Your task to perform on an android device: search for starred emails in the gmail app Image 0: 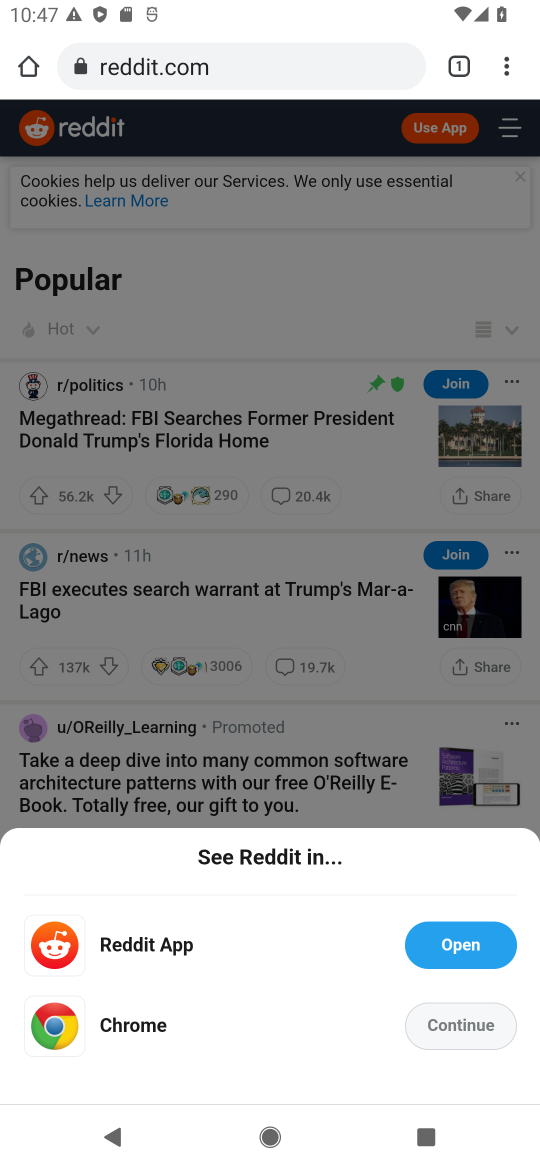
Step 0: press home button
Your task to perform on an android device: search for starred emails in the gmail app Image 1: 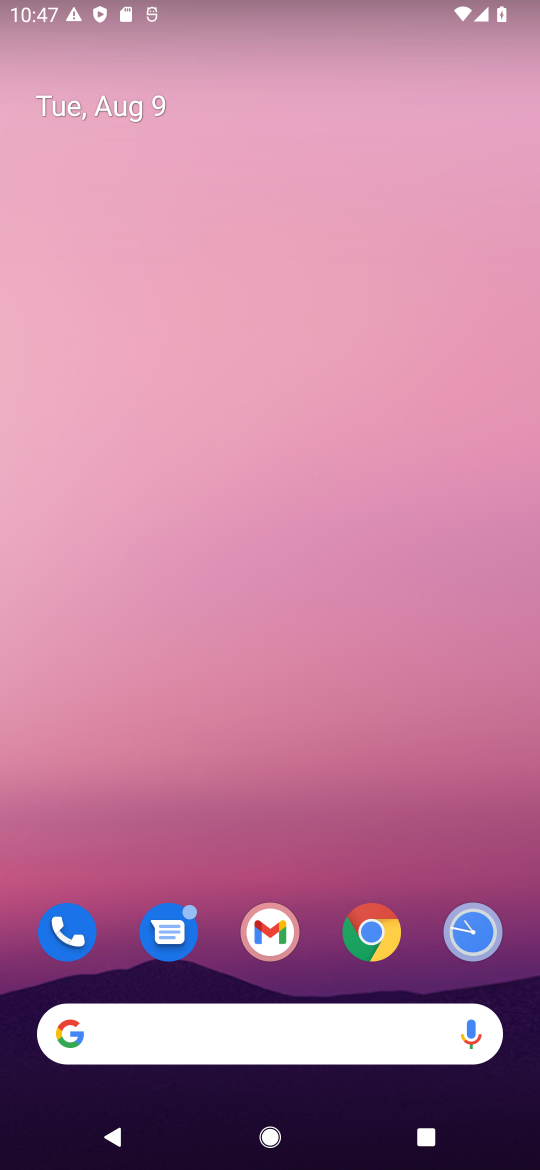
Step 1: click (279, 934)
Your task to perform on an android device: search for starred emails in the gmail app Image 2: 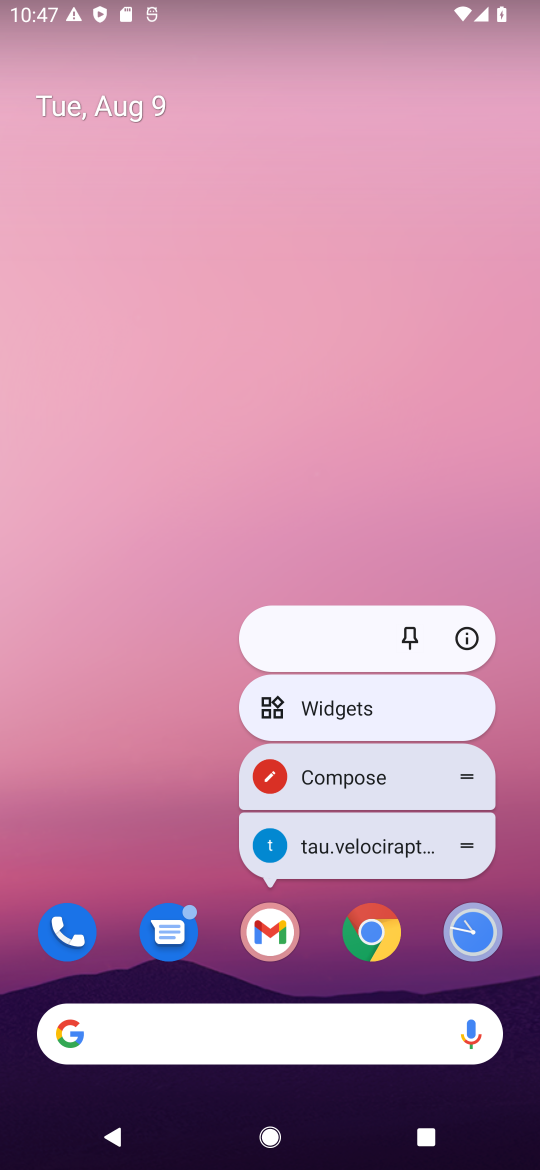
Step 2: click (279, 934)
Your task to perform on an android device: search for starred emails in the gmail app Image 3: 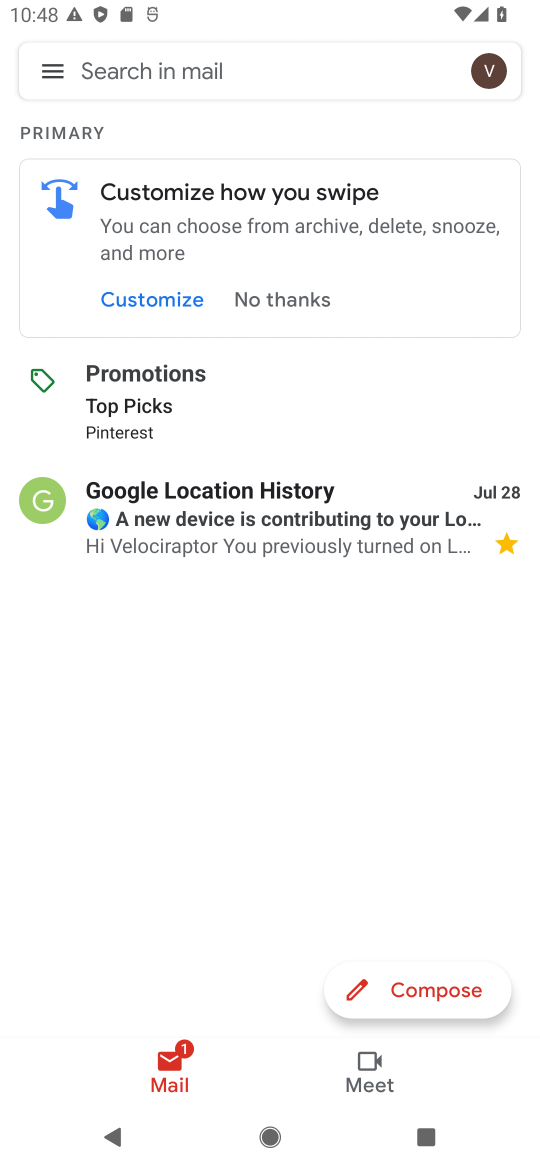
Step 3: click (44, 66)
Your task to perform on an android device: search for starred emails in the gmail app Image 4: 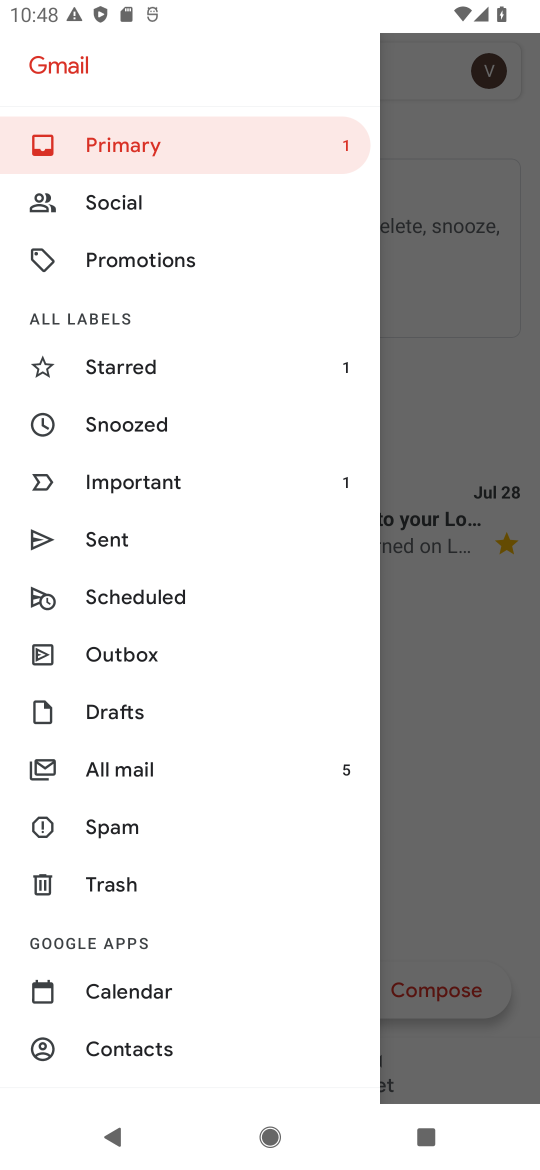
Step 4: click (134, 884)
Your task to perform on an android device: search for starred emails in the gmail app Image 5: 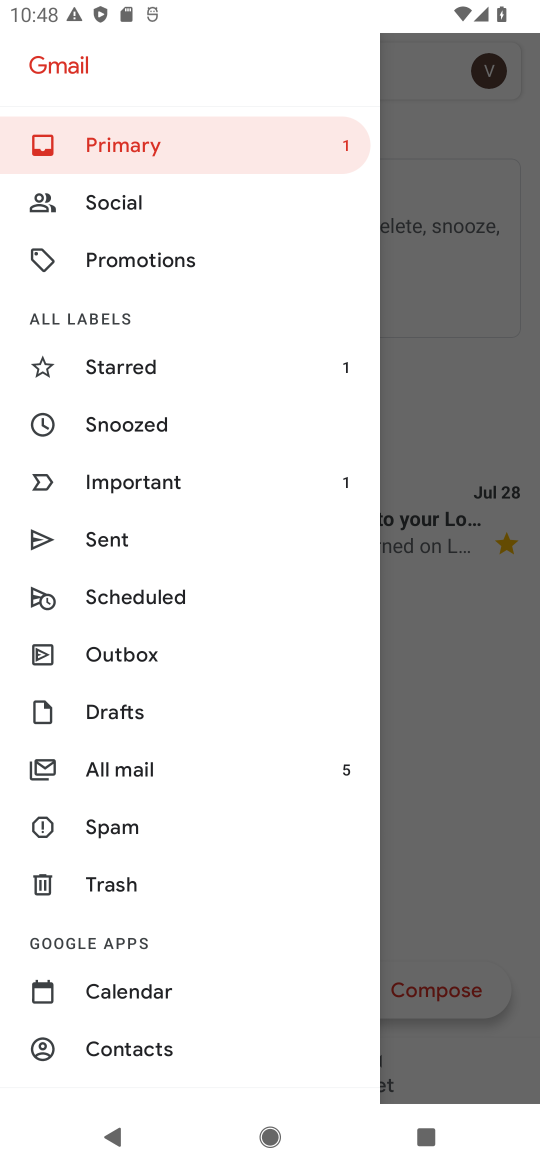
Step 5: click (124, 351)
Your task to perform on an android device: search for starred emails in the gmail app Image 6: 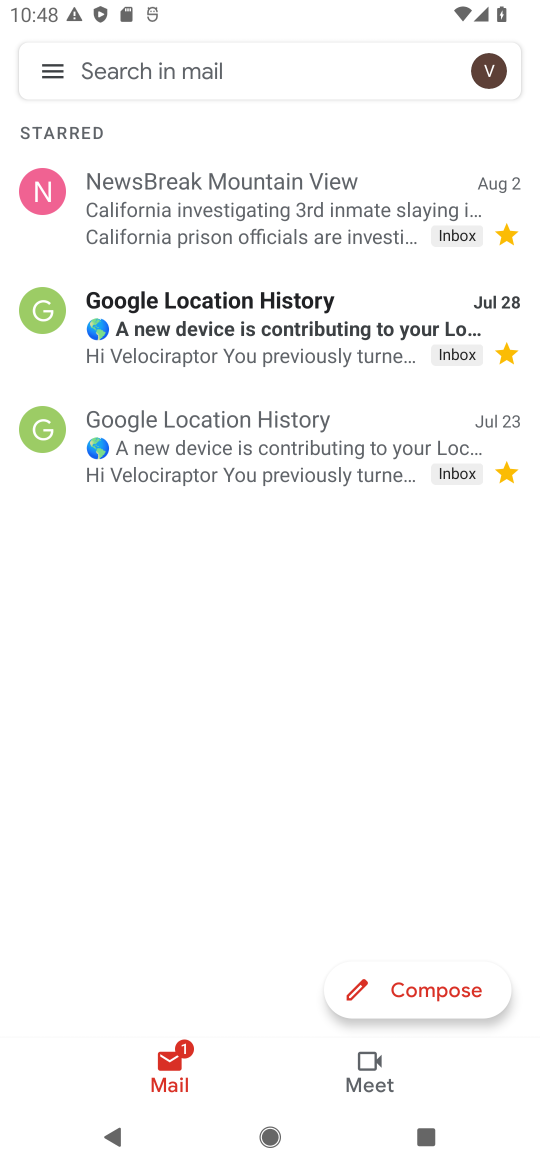
Step 6: task complete